Your task to perform on an android device: Show me the alarms in the clock app Image 0: 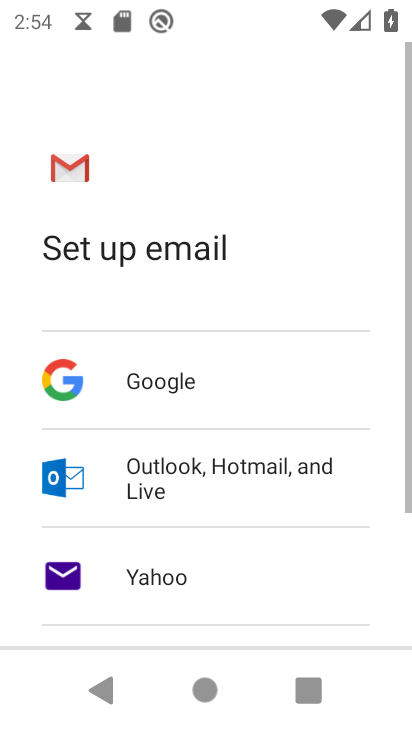
Step 0: press home button
Your task to perform on an android device: Show me the alarms in the clock app Image 1: 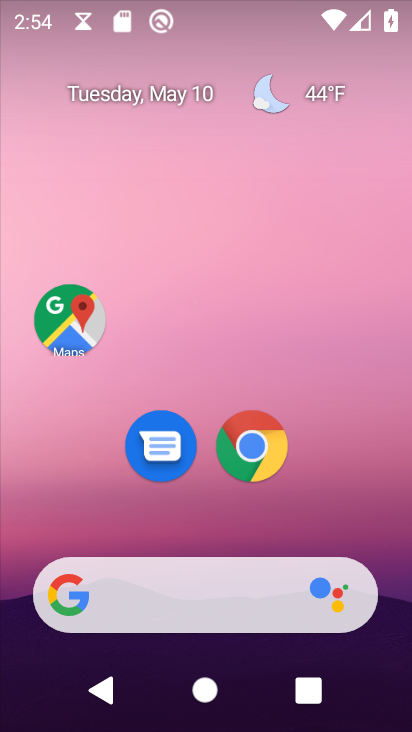
Step 1: drag from (337, 537) to (376, 22)
Your task to perform on an android device: Show me the alarms in the clock app Image 2: 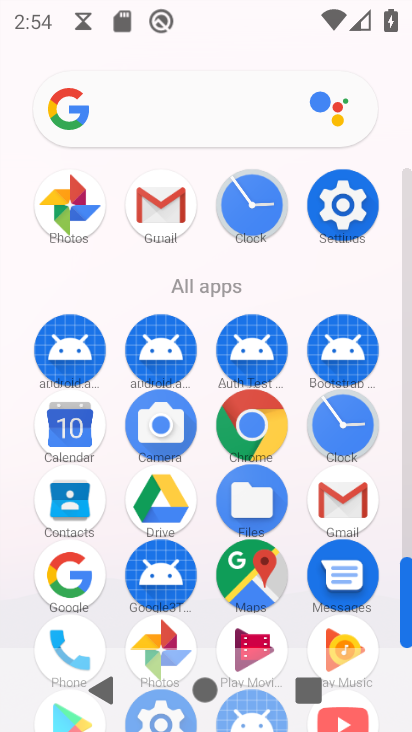
Step 2: click (366, 415)
Your task to perform on an android device: Show me the alarms in the clock app Image 3: 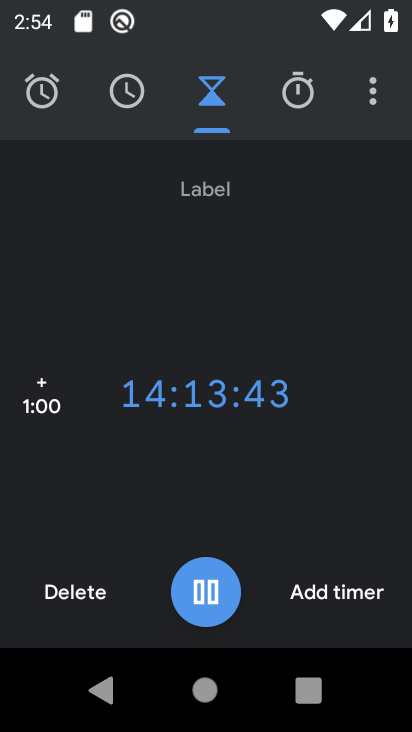
Step 3: click (49, 93)
Your task to perform on an android device: Show me the alarms in the clock app Image 4: 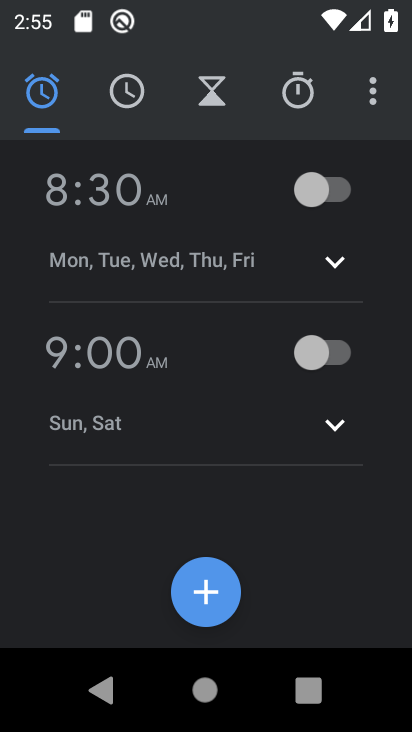
Step 4: click (139, 201)
Your task to perform on an android device: Show me the alarms in the clock app Image 5: 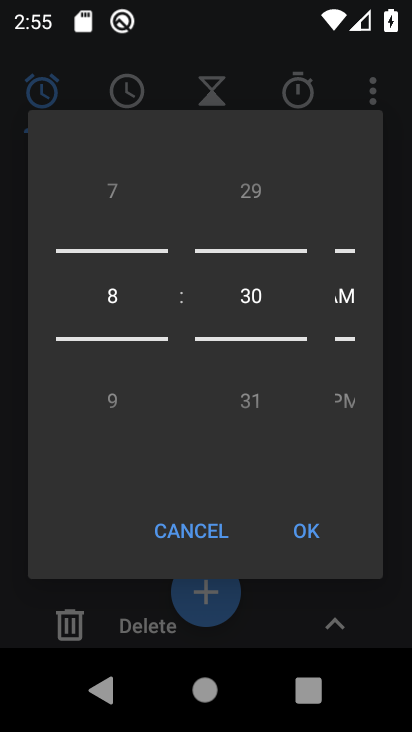
Step 5: task complete